Your task to perform on an android device: What is the recent news? Image 0: 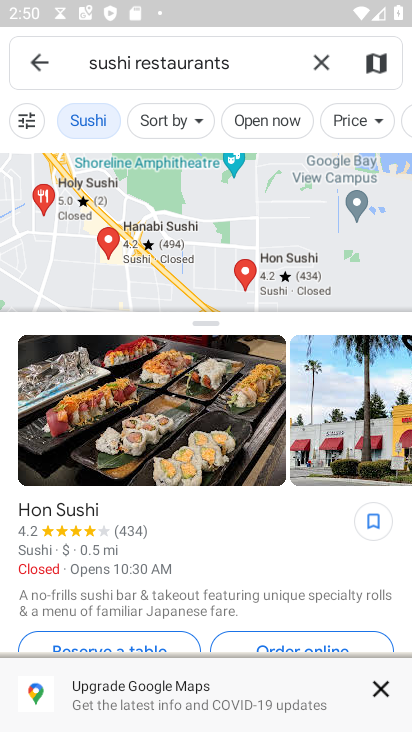
Step 0: press home button
Your task to perform on an android device: What is the recent news? Image 1: 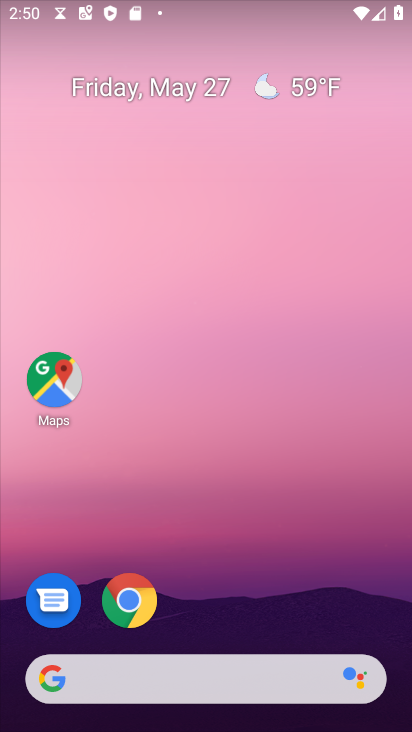
Step 1: drag from (259, 610) to (214, 69)
Your task to perform on an android device: What is the recent news? Image 2: 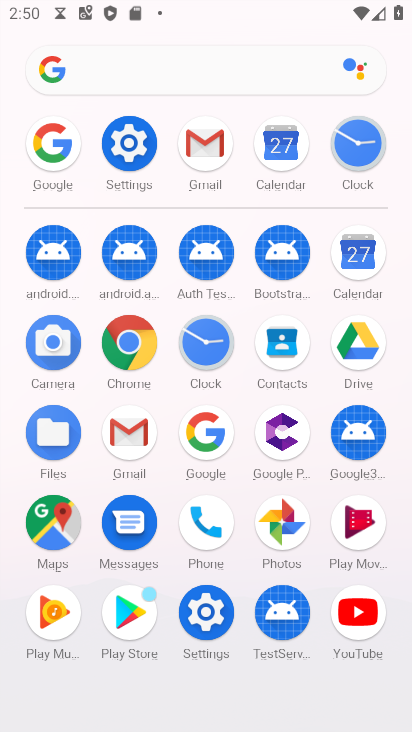
Step 2: click (201, 432)
Your task to perform on an android device: What is the recent news? Image 3: 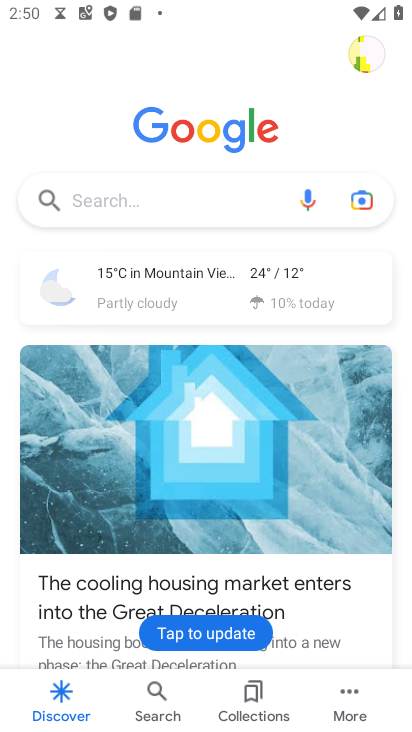
Step 3: click (197, 201)
Your task to perform on an android device: What is the recent news? Image 4: 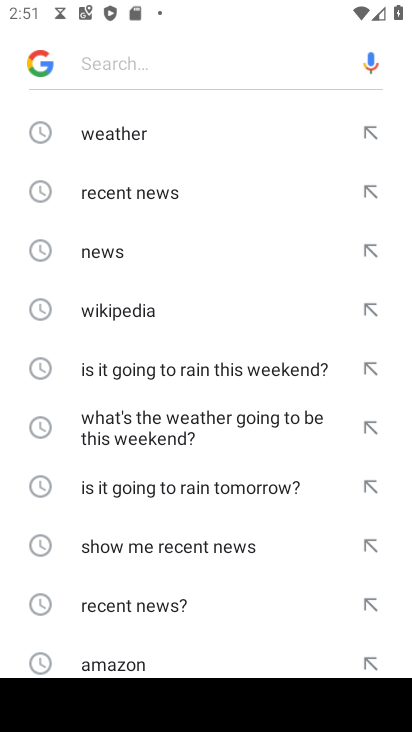
Step 4: type "recent news"
Your task to perform on an android device: What is the recent news? Image 5: 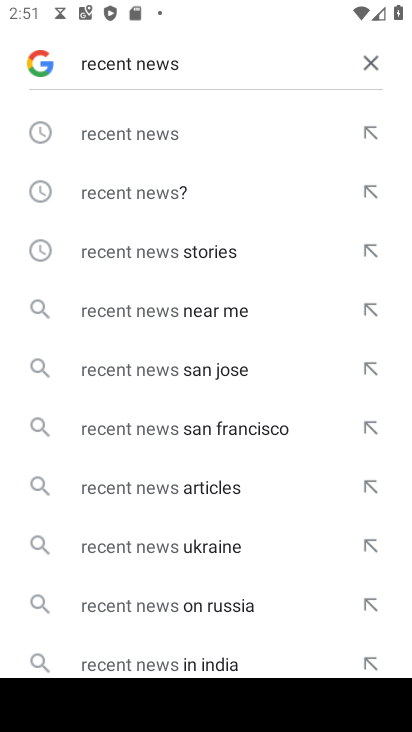
Step 5: click (116, 132)
Your task to perform on an android device: What is the recent news? Image 6: 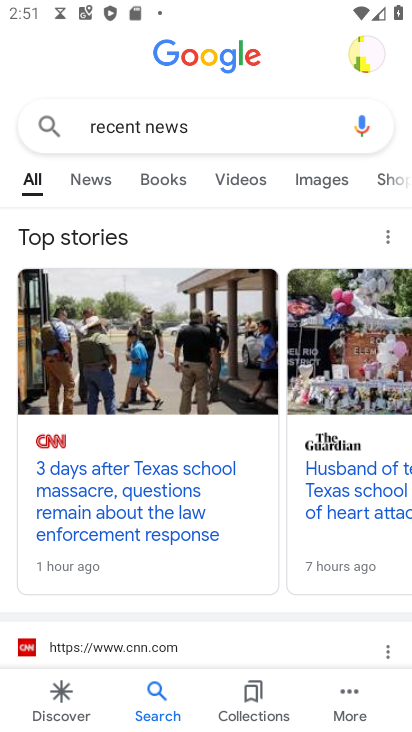
Step 6: task complete